Your task to perform on an android device: delete a single message in the gmail app Image 0: 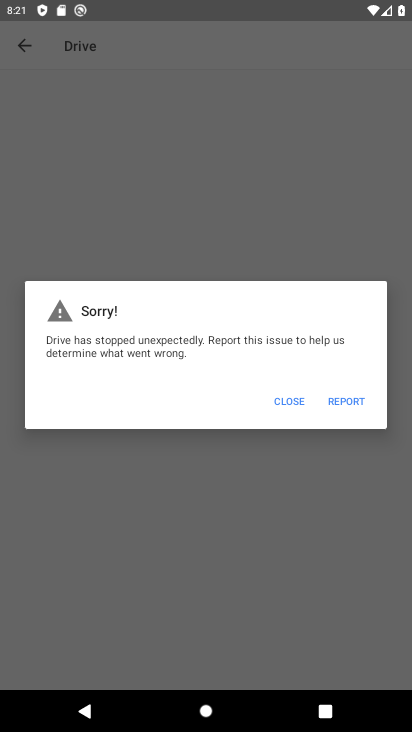
Step 0: press home button
Your task to perform on an android device: delete a single message in the gmail app Image 1: 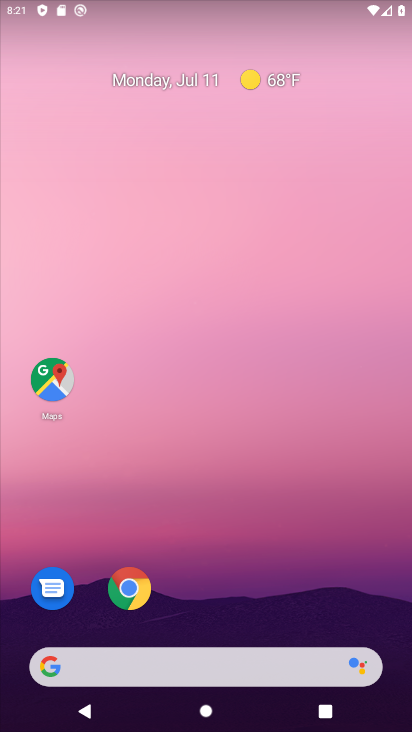
Step 1: drag from (174, 646) to (136, 79)
Your task to perform on an android device: delete a single message in the gmail app Image 2: 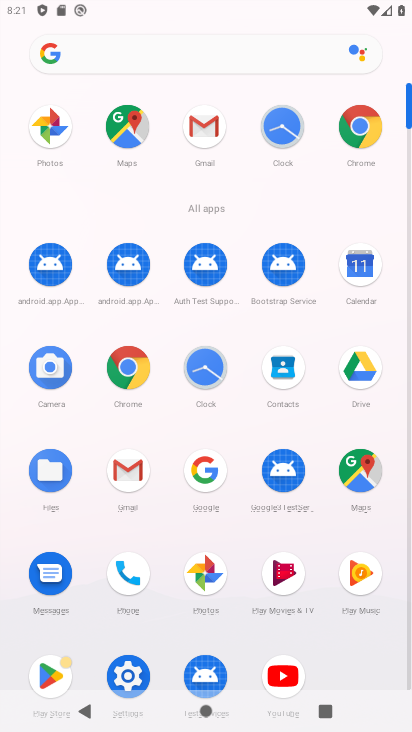
Step 2: click (137, 483)
Your task to perform on an android device: delete a single message in the gmail app Image 3: 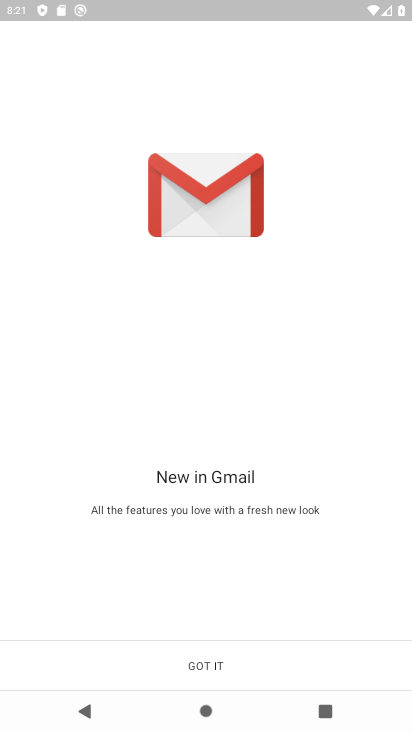
Step 3: click (189, 669)
Your task to perform on an android device: delete a single message in the gmail app Image 4: 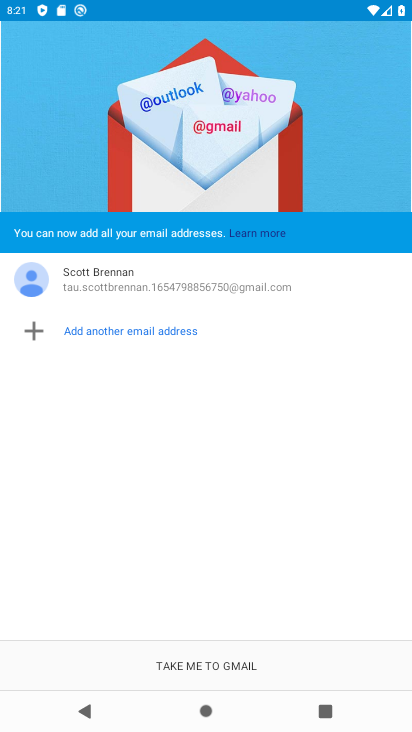
Step 4: click (187, 665)
Your task to perform on an android device: delete a single message in the gmail app Image 5: 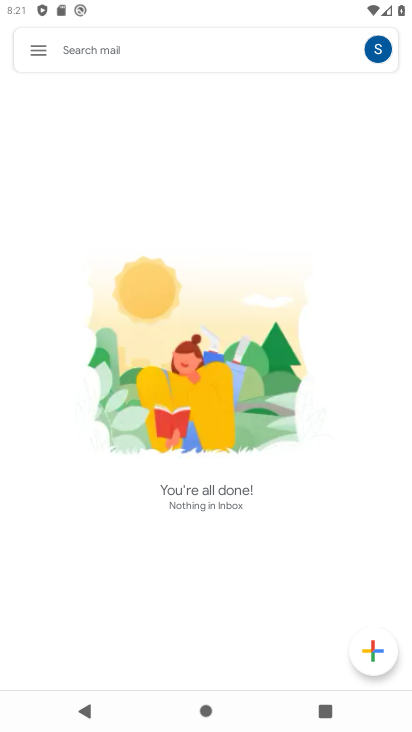
Step 5: click (35, 44)
Your task to perform on an android device: delete a single message in the gmail app Image 6: 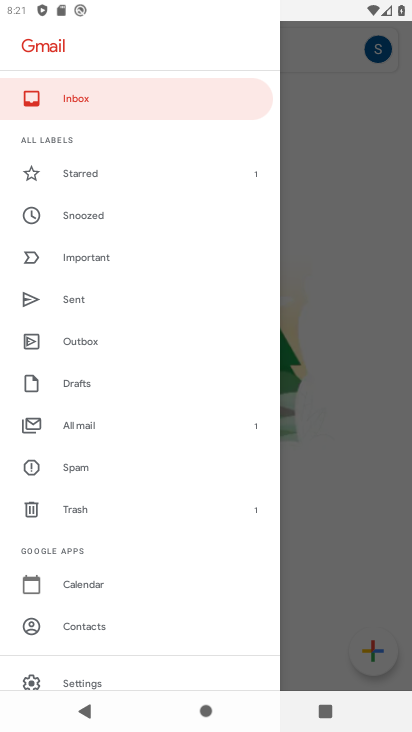
Step 6: click (117, 418)
Your task to perform on an android device: delete a single message in the gmail app Image 7: 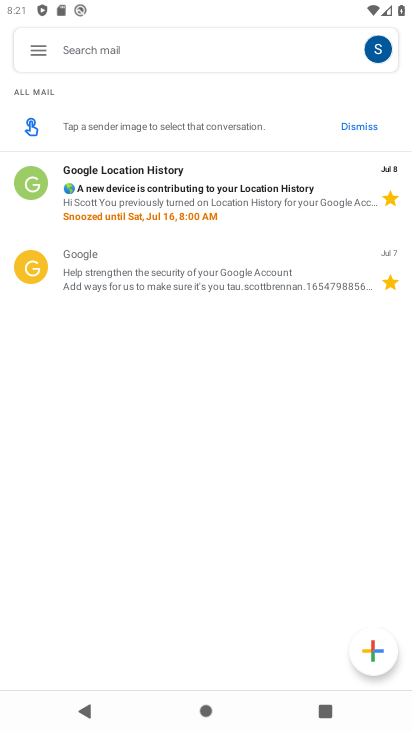
Step 7: click (202, 218)
Your task to perform on an android device: delete a single message in the gmail app Image 8: 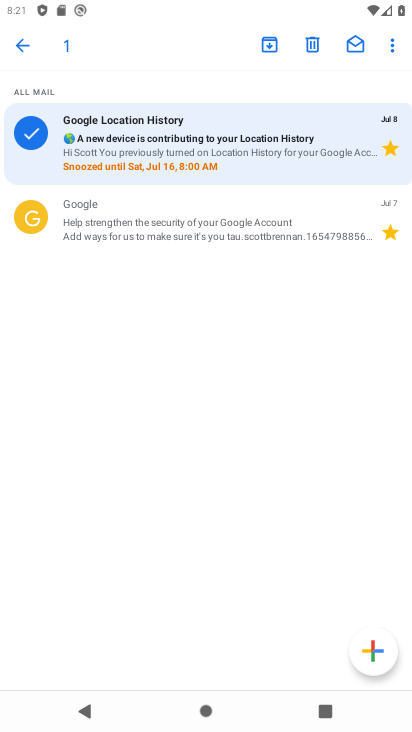
Step 8: click (307, 47)
Your task to perform on an android device: delete a single message in the gmail app Image 9: 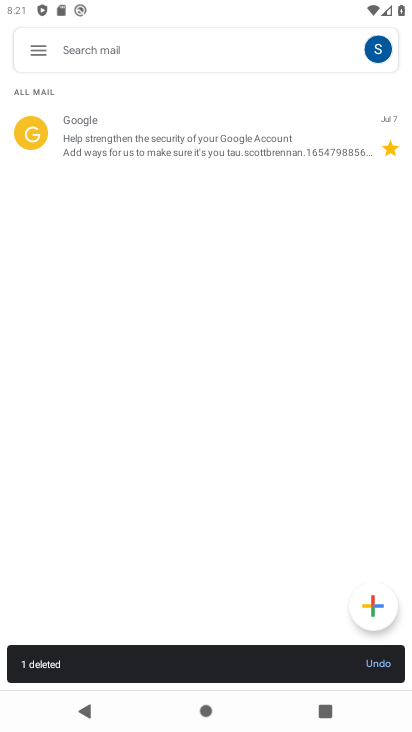
Step 9: task complete